Your task to perform on an android device: toggle pop-ups in chrome Image 0: 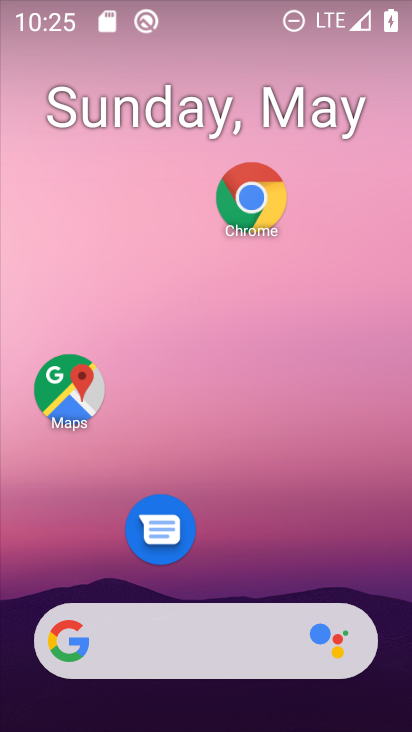
Step 0: drag from (290, 565) to (307, 63)
Your task to perform on an android device: toggle pop-ups in chrome Image 1: 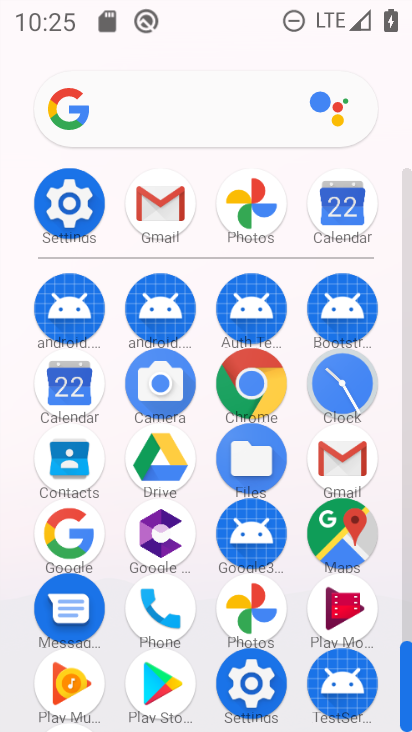
Step 1: click (245, 377)
Your task to perform on an android device: toggle pop-ups in chrome Image 2: 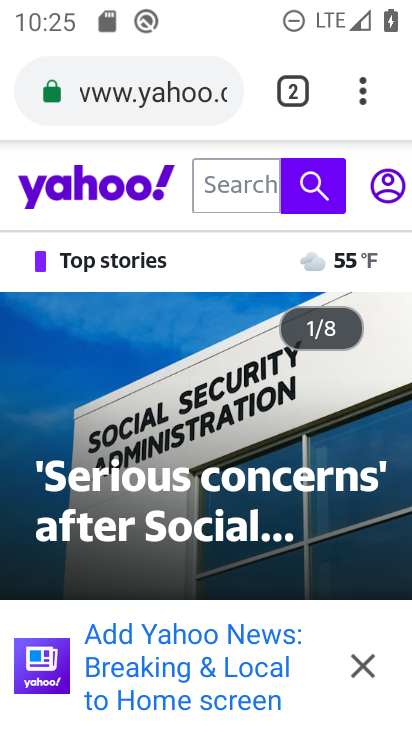
Step 2: click (355, 88)
Your task to perform on an android device: toggle pop-ups in chrome Image 3: 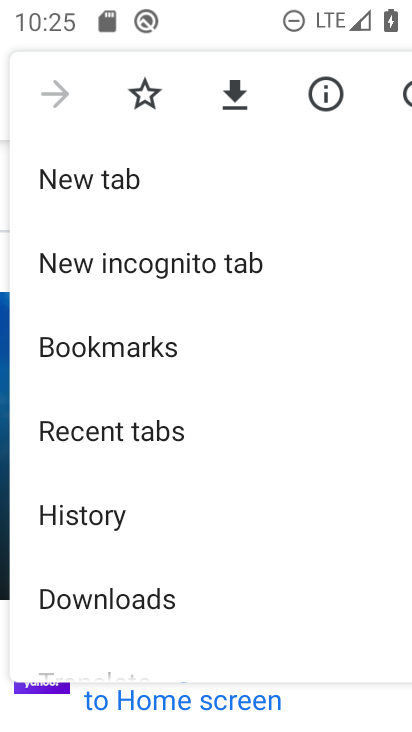
Step 3: drag from (159, 580) to (181, 232)
Your task to perform on an android device: toggle pop-ups in chrome Image 4: 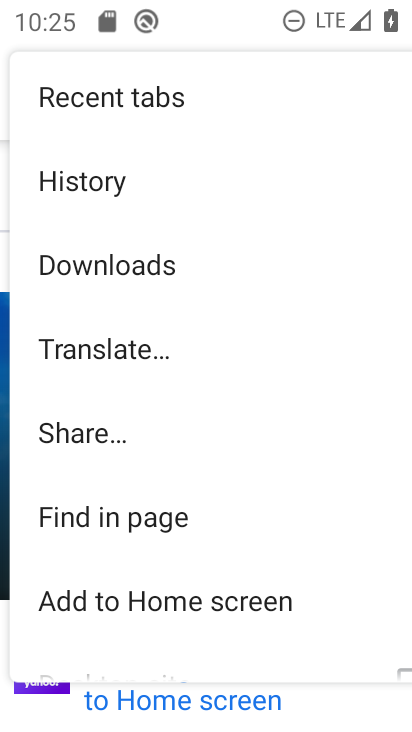
Step 4: drag from (152, 579) to (195, 218)
Your task to perform on an android device: toggle pop-ups in chrome Image 5: 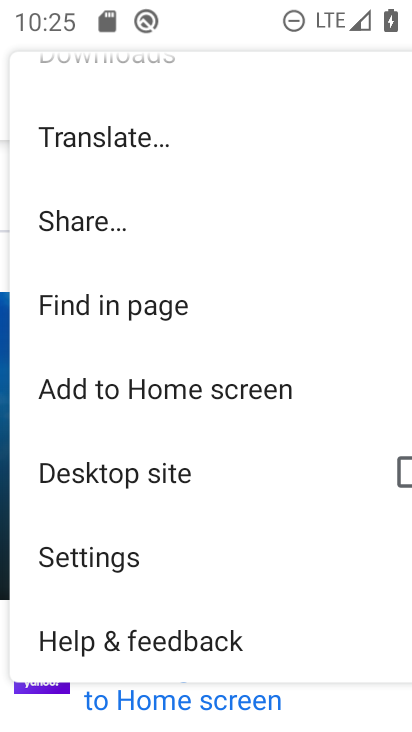
Step 5: click (106, 543)
Your task to perform on an android device: toggle pop-ups in chrome Image 6: 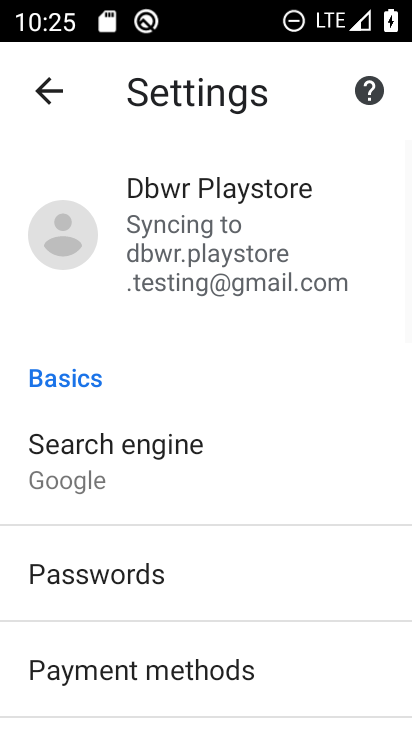
Step 6: drag from (89, 641) to (157, 339)
Your task to perform on an android device: toggle pop-ups in chrome Image 7: 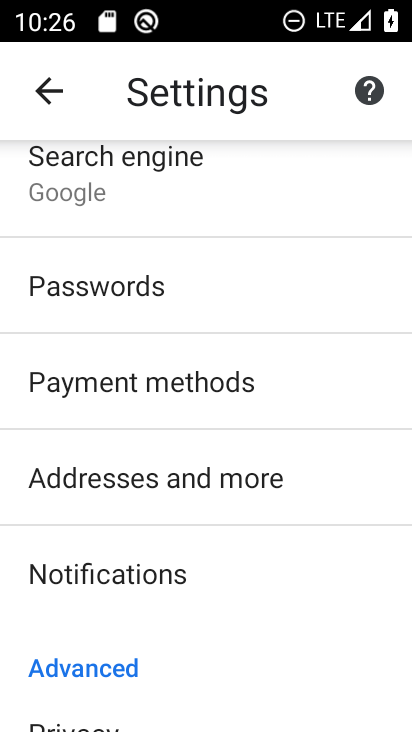
Step 7: drag from (154, 629) to (214, 318)
Your task to perform on an android device: toggle pop-ups in chrome Image 8: 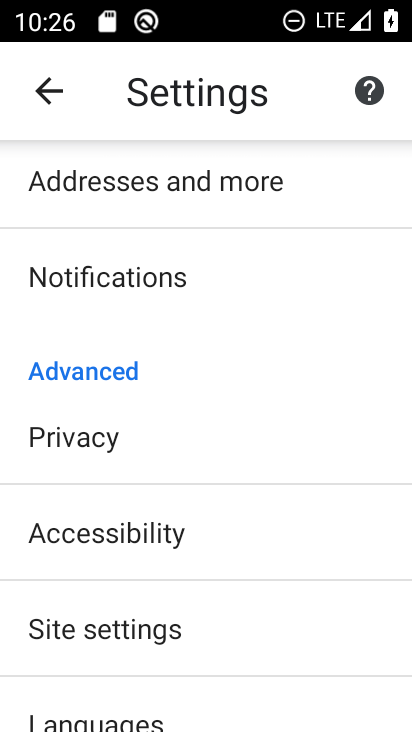
Step 8: drag from (230, 660) to (261, 284)
Your task to perform on an android device: toggle pop-ups in chrome Image 9: 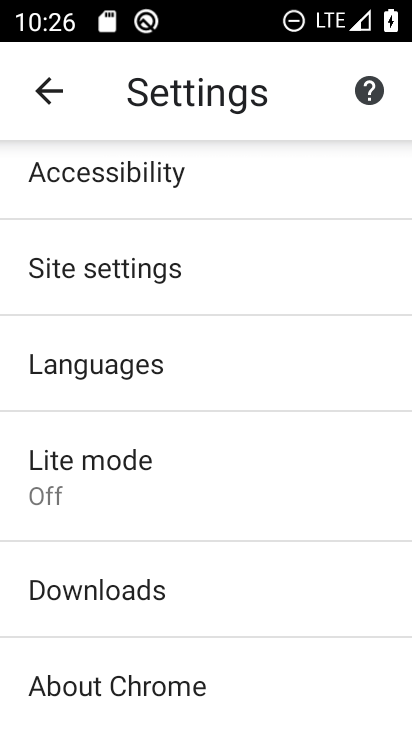
Step 9: click (219, 268)
Your task to perform on an android device: toggle pop-ups in chrome Image 10: 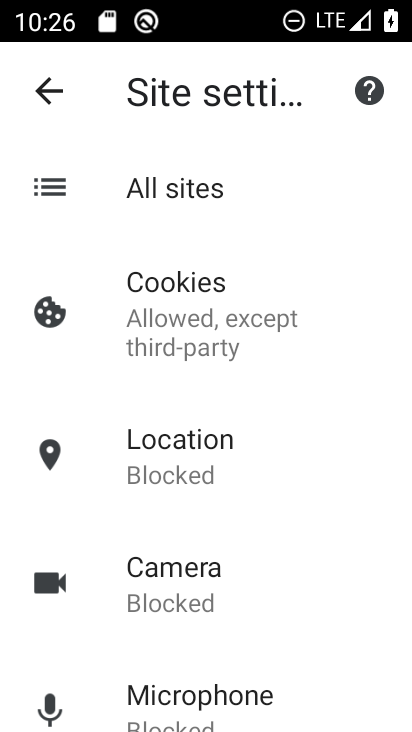
Step 10: drag from (188, 620) to (229, 293)
Your task to perform on an android device: toggle pop-ups in chrome Image 11: 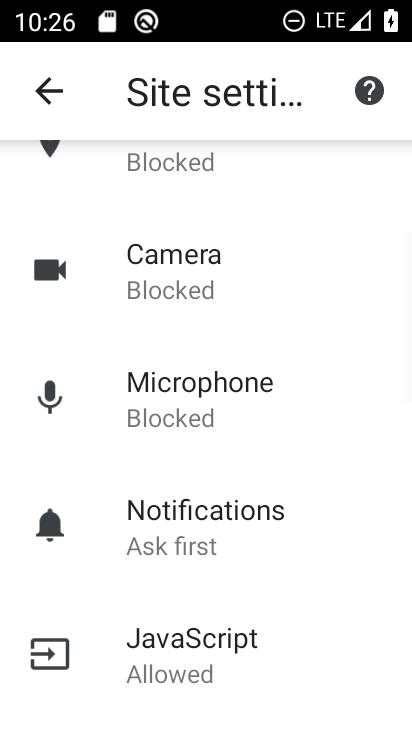
Step 11: drag from (176, 672) to (208, 430)
Your task to perform on an android device: toggle pop-ups in chrome Image 12: 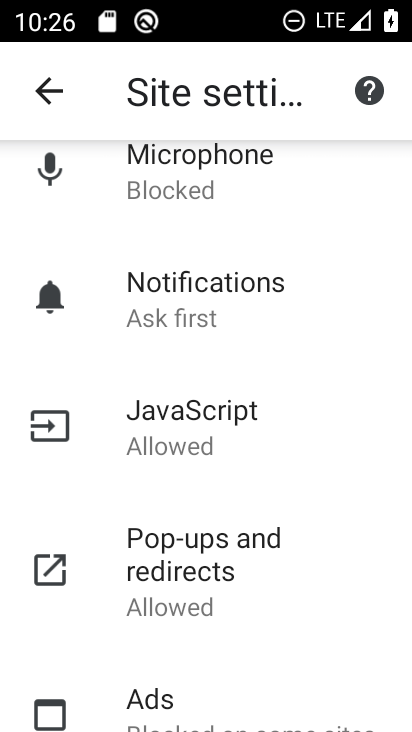
Step 12: click (198, 557)
Your task to perform on an android device: toggle pop-ups in chrome Image 13: 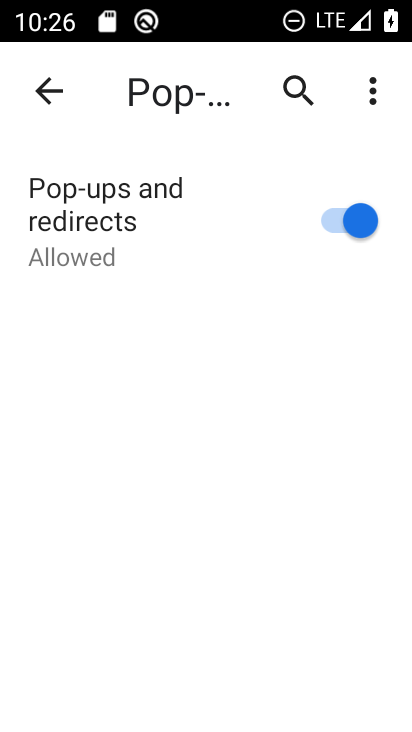
Step 13: click (340, 221)
Your task to perform on an android device: toggle pop-ups in chrome Image 14: 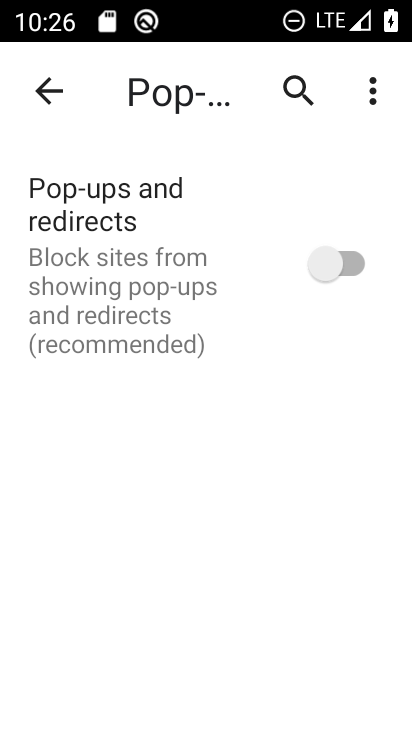
Step 14: task complete